Your task to perform on an android device: create a new album in the google photos Image 0: 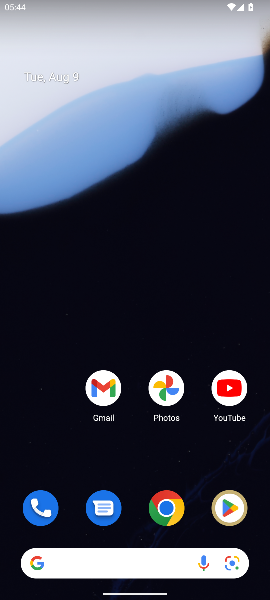
Step 0: click (162, 396)
Your task to perform on an android device: create a new album in the google photos Image 1: 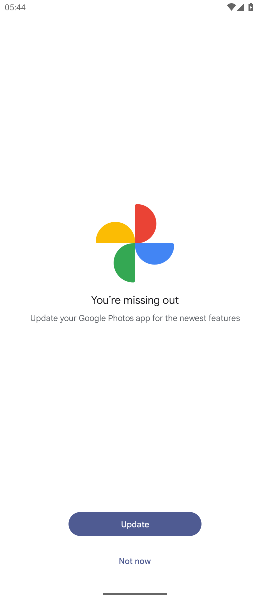
Step 1: click (143, 526)
Your task to perform on an android device: create a new album in the google photos Image 2: 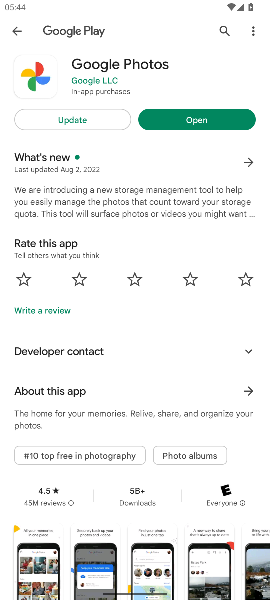
Step 2: click (93, 114)
Your task to perform on an android device: create a new album in the google photos Image 3: 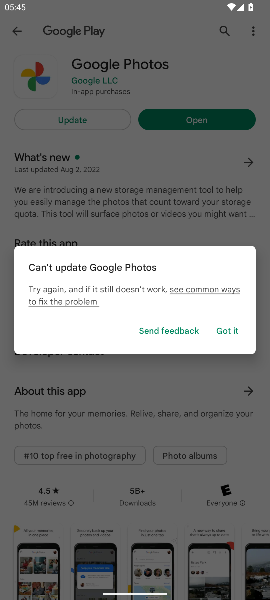
Step 3: click (235, 328)
Your task to perform on an android device: create a new album in the google photos Image 4: 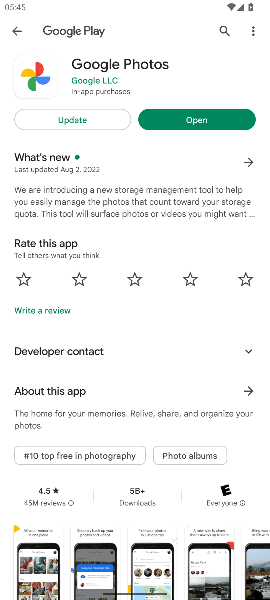
Step 4: click (87, 125)
Your task to perform on an android device: create a new album in the google photos Image 5: 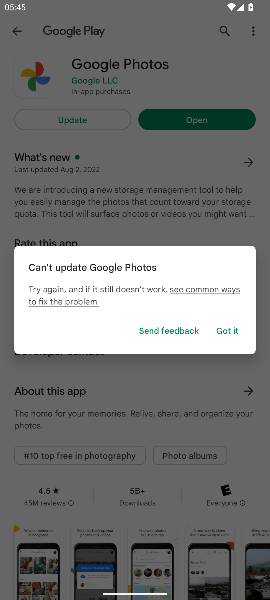
Step 5: click (232, 325)
Your task to perform on an android device: create a new album in the google photos Image 6: 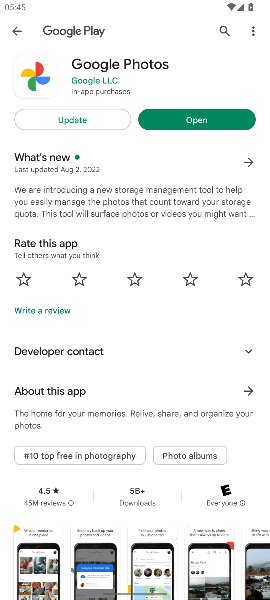
Step 6: task complete